Your task to perform on an android device: turn pop-ups on in chrome Image 0: 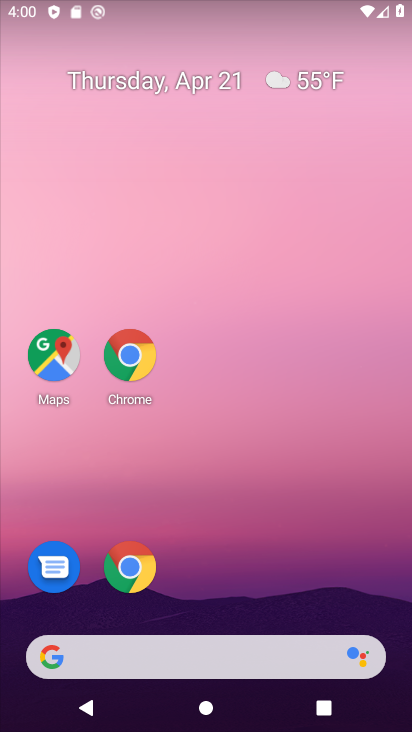
Step 0: drag from (250, 490) to (233, 90)
Your task to perform on an android device: turn pop-ups on in chrome Image 1: 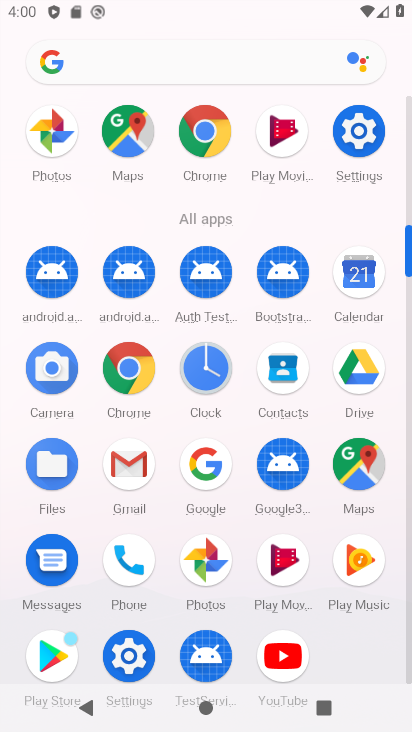
Step 1: click (235, 75)
Your task to perform on an android device: turn pop-ups on in chrome Image 2: 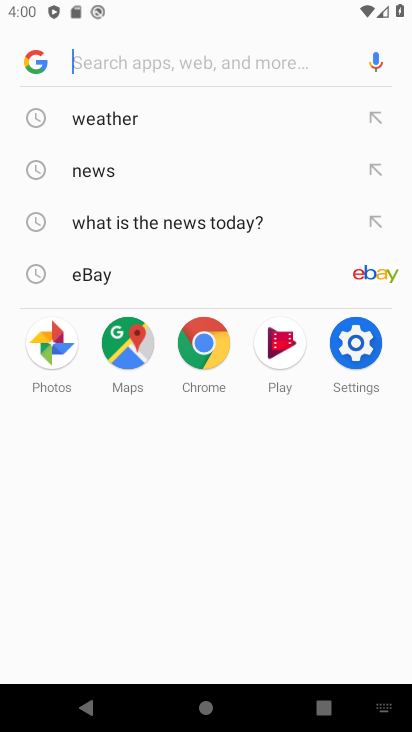
Step 2: press home button
Your task to perform on an android device: turn pop-ups on in chrome Image 3: 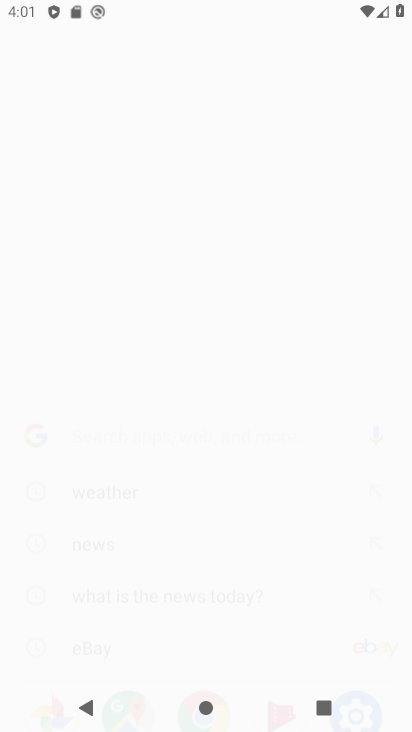
Step 3: press home button
Your task to perform on an android device: turn pop-ups on in chrome Image 4: 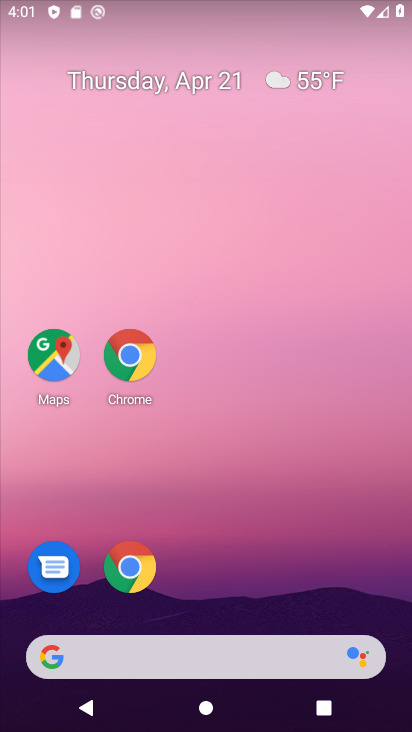
Step 4: drag from (276, 594) to (185, 247)
Your task to perform on an android device: turn pop-ups on in chrome Image 5: 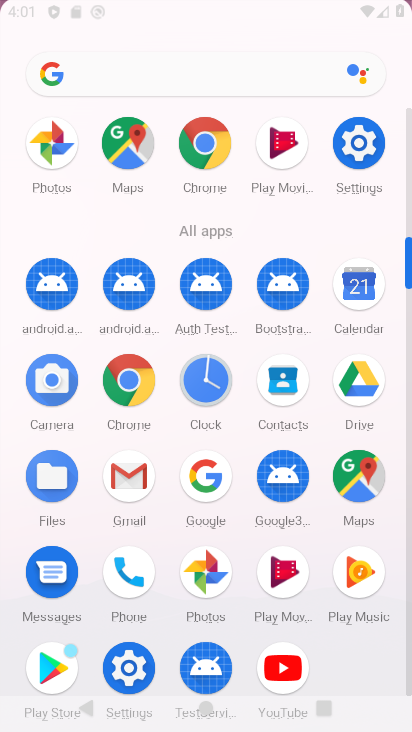
Step 5: drag from (266, 477) to (158, 140)
Your task to perform on an android device: turn pop-ups on in chrome Image 6: 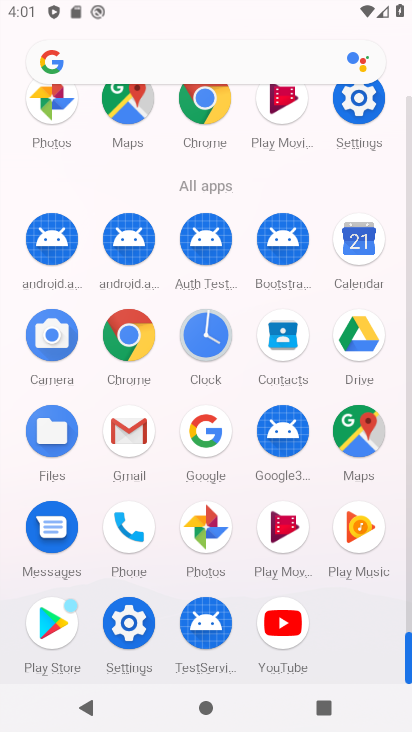
Step 6: click (203, 104)
Your task to perform on an android device: turn pop-ups on in chrome Image 7: 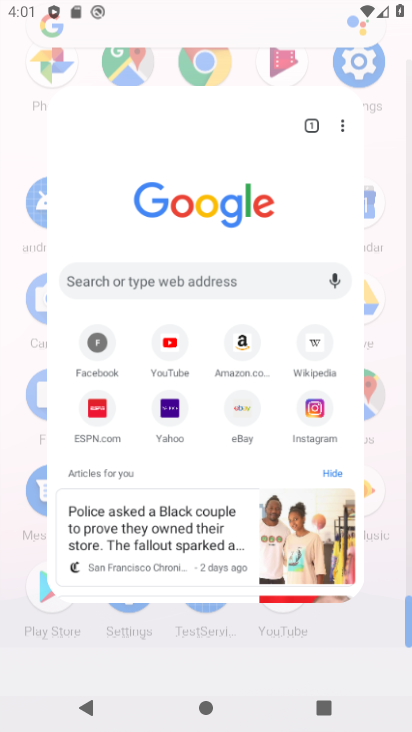
Step 7: click (203, 104)
Your task to perform on an android device: turn pop-ups on in chrome Image 8: 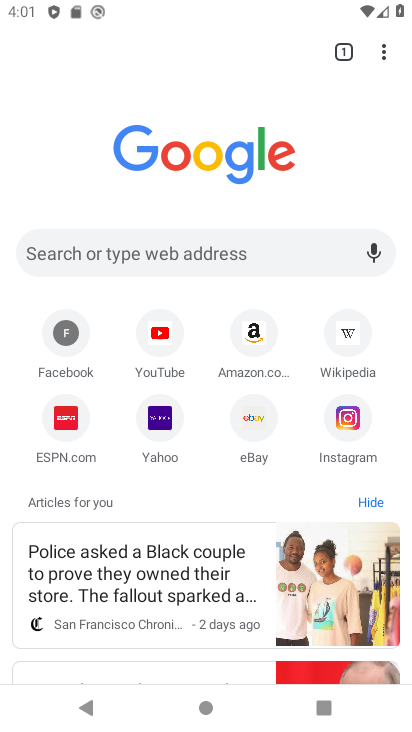
Step 8: drag from (384, 44) to (215, 445)
Your task to perform on an android device: turn pop-ups on in chrome Image 9: 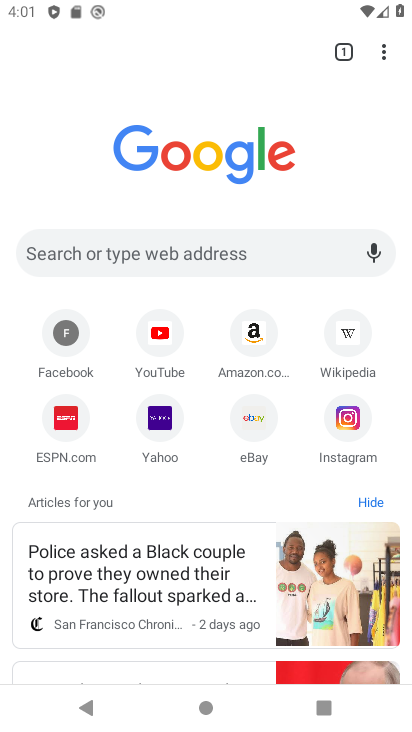
Step 9: click (215, 440)
Your task to perform on an android device: turn pop-ups on in chrome Image 10: 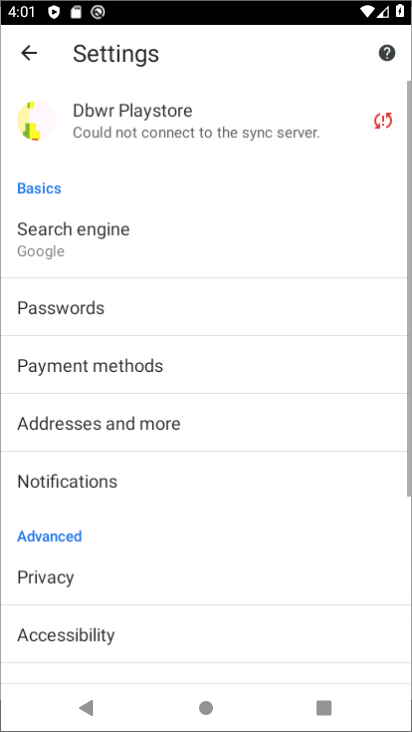
Step 10: click (207, 433)
Your task to perform on an android device: turn pop-ups on in chrome Image 11: 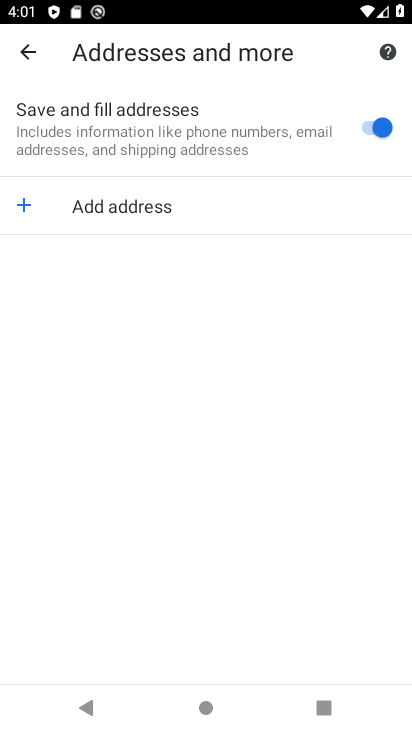
Step 11: click (27, 43)
Your task to perform on an android device: turn pop-ups on in chrome Image 12: 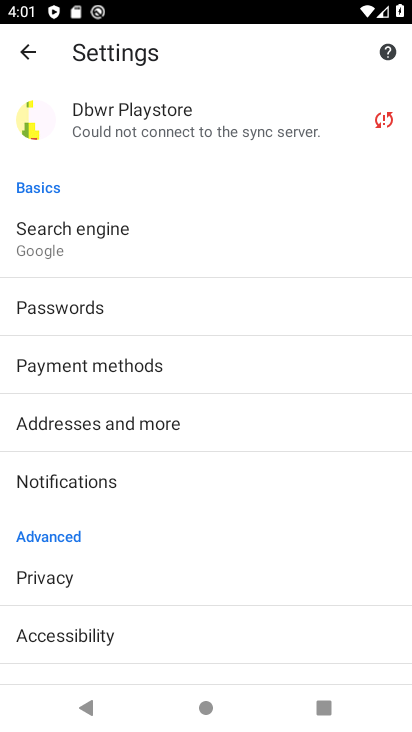
Step 12: drag from (155, 502) to (157, 196)
Your task to perform on an android device: turn pop-ups on in chrome Image 13: 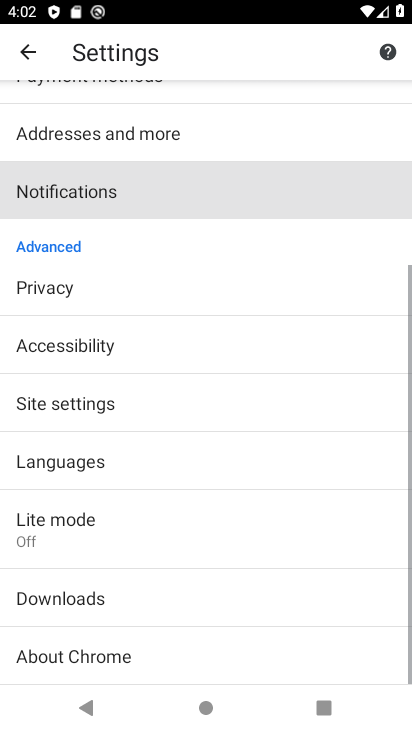
Step 13: drag from (155, 367) to (154, 124)
Your task to perform on an android device: turn pop-ups on in chrome Image 14: 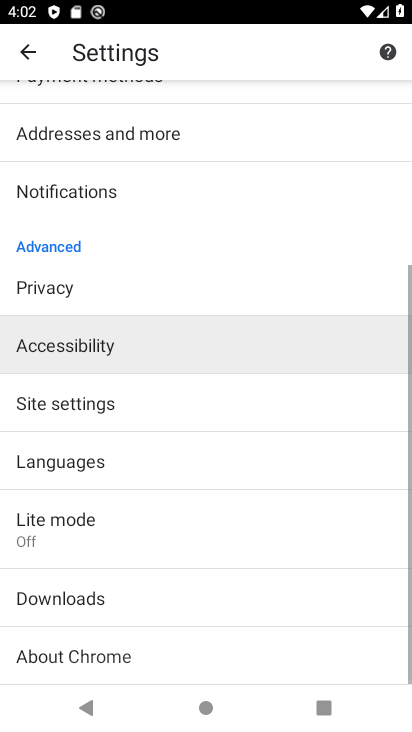
Step 14: drag from (155, 267) to (155, 95)
Your task to perform on an android device: turn pop-ups on in chrome Image 15: 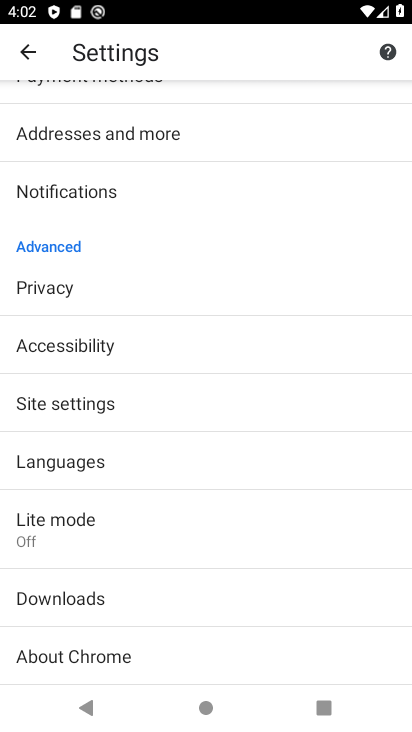
Step 15: click (53, 402)
Your task to perform on an android device: turn pop-ups on in chrome Image 16: 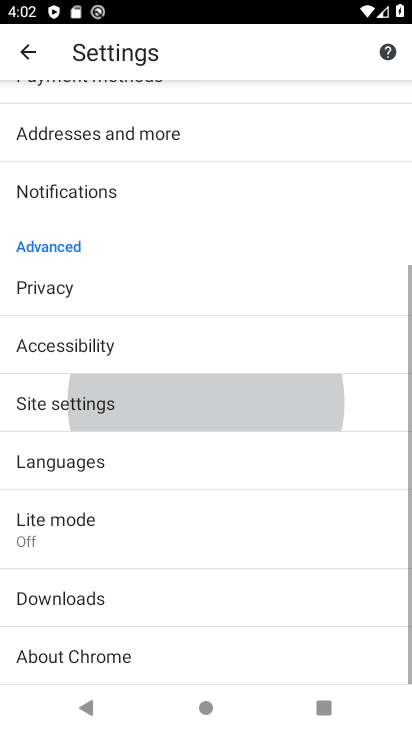
Step 16: click (52, 401)
Your task to perform on an android device: turn pop-ups on in chrome Image 17: 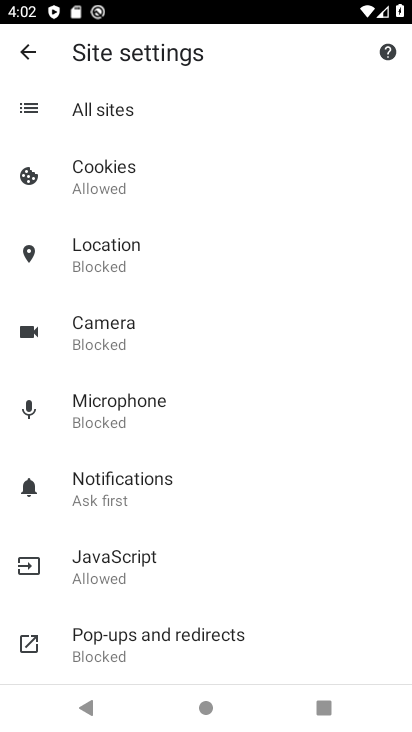
Step 17: drag from (177, 504) to (275, 44)
Your task to perform on an android device: turn pop-ups on in chrome Image 18: 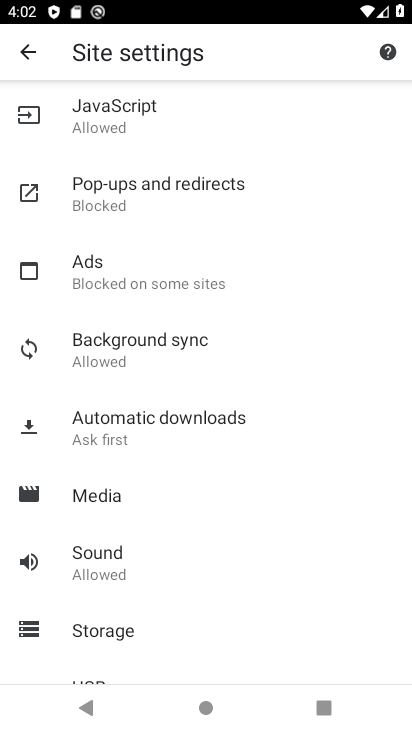
Step 18: click (96, 179)
Your task to perform on an android device: turn pop-ups on in chrome Image 19: 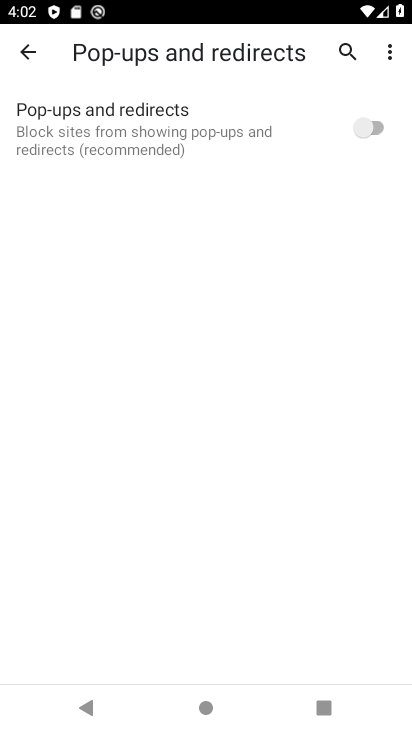
Step 19: click (23, 50)
Your task to perform on an android device: turn pop-ups on in chrome Image 20: 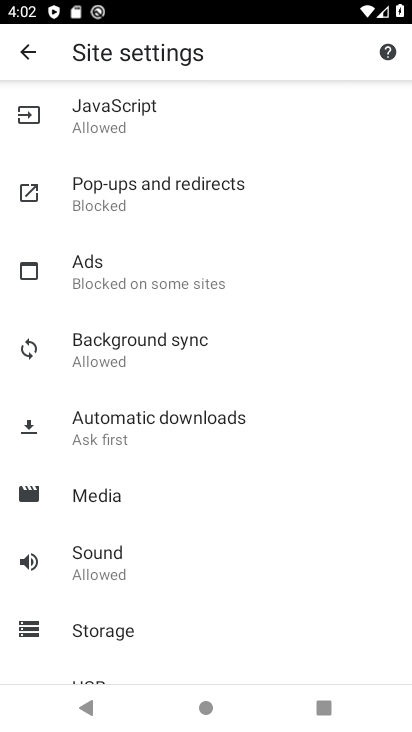
Step 20: click (100, 207)
Your task to perform on an android device: turn pop-ups on in chrome Image 21: 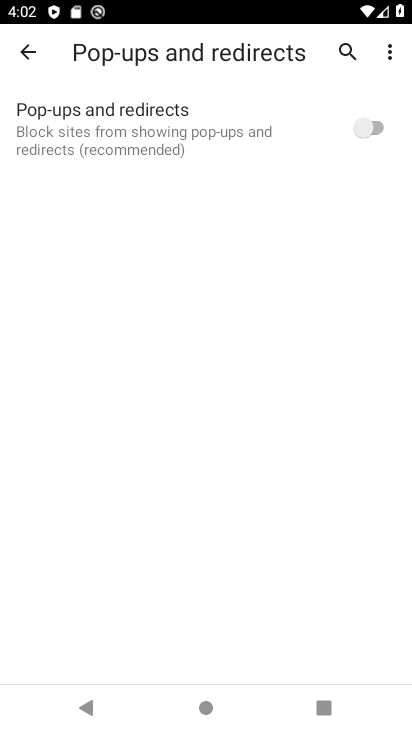
Step 21: click (360, 128)
Your task to perform on an android device: turn pop-ups on in chrome Image 22: 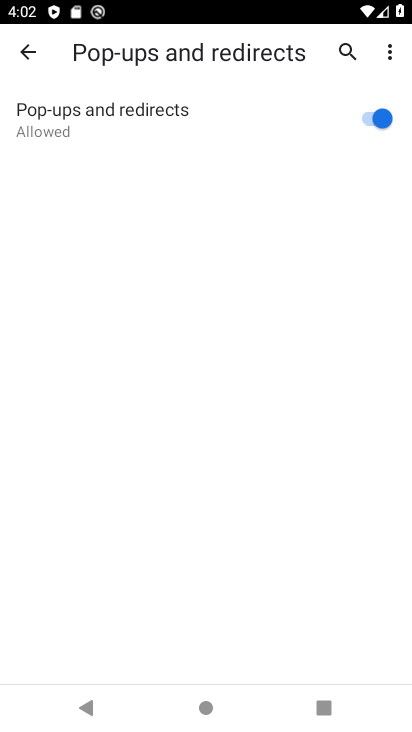
Step 22: task complete